Your task to perform on an android device: Set the phone to "Do not disturb". Image 0: 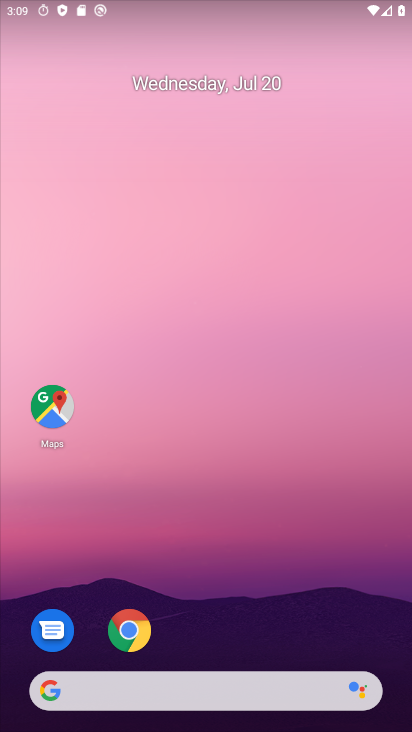
Step 0: drag from (252, 607) to (200, 174)
Your task to perform on an android device: Set the phone to "Do not disturb". Image 1: 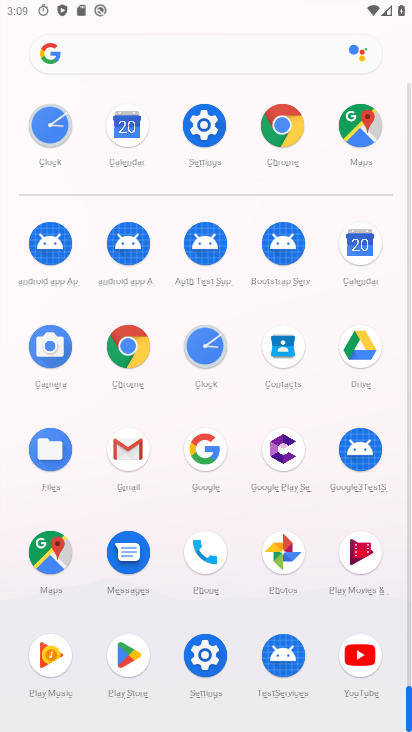
Step 1: click (204, 143)
Your task to perform on an android device: Set the phone to "Do not disturb". Image 2: 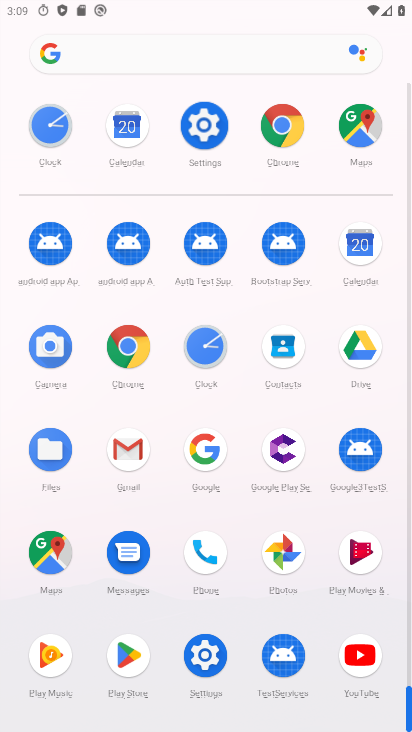
Step 2: click (204, 143)
Your task to perform on an android device: Set the phone to "Do not disturb". Image 3: 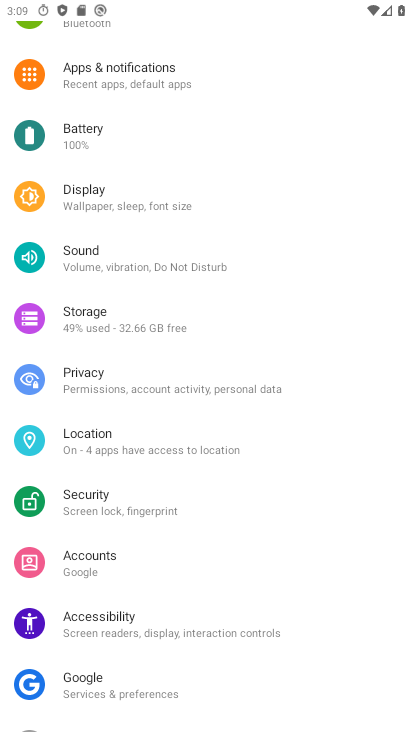
Step 3: drag from (123, 206) to (147, 467)
Your task to perform on an android device: Set the phone to "Do not disturb". Image 4: 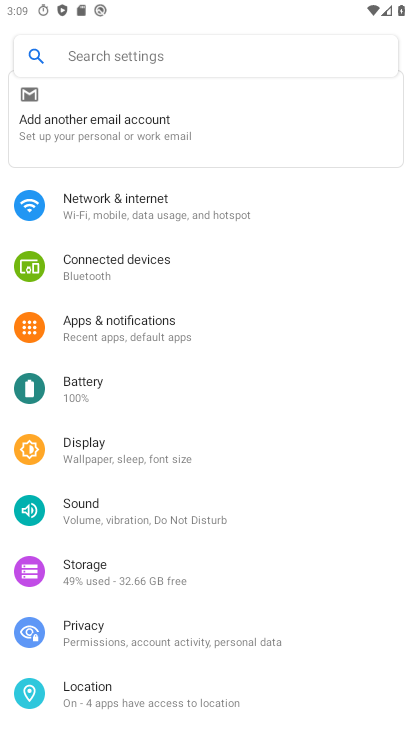
Step 4: drag from (122, 270) to (174, 588)
Your task to perform on an android device: Set the phone to "Do not disturb". Image 5: 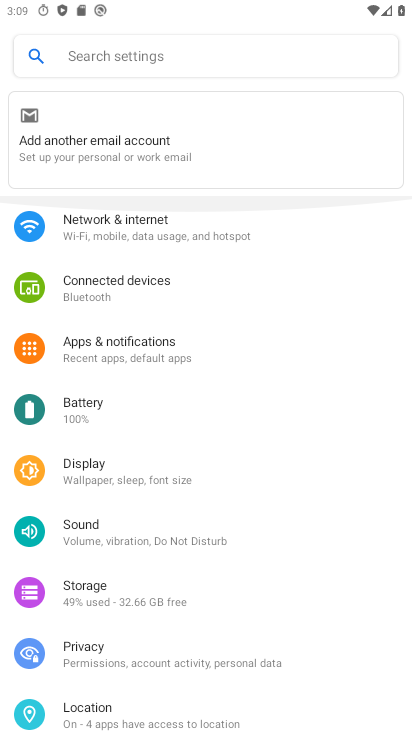
Step 5: drag from (146, 200) to (162, 443)
Your task to perform on an android device: Set the phone to "Do not disturb". Image 6: 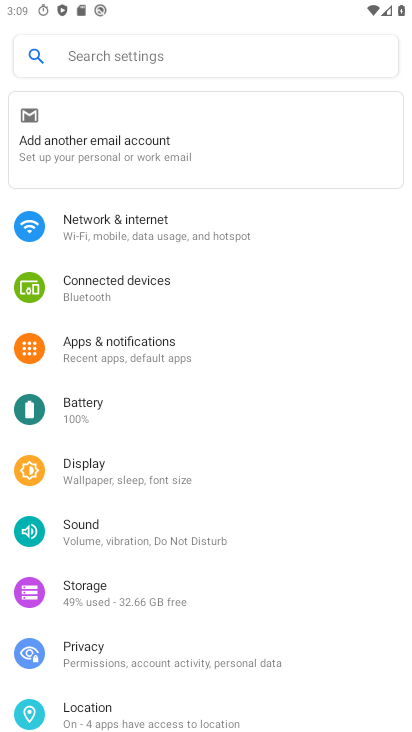
Step 6: drag from (157, 577) to (122, 231)
Your task to perform on an android device: Set the phone to "Do not disturb". Image 7: 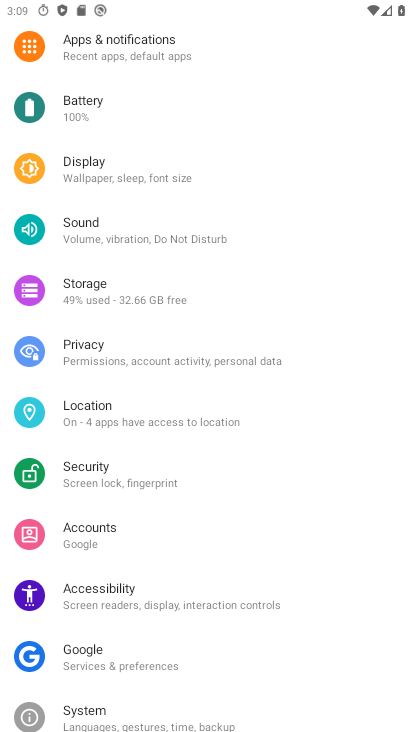
Step 7: click (115, 235)
Your task to perform on an android device: Set the phone to "Do not disturb". Image 8: 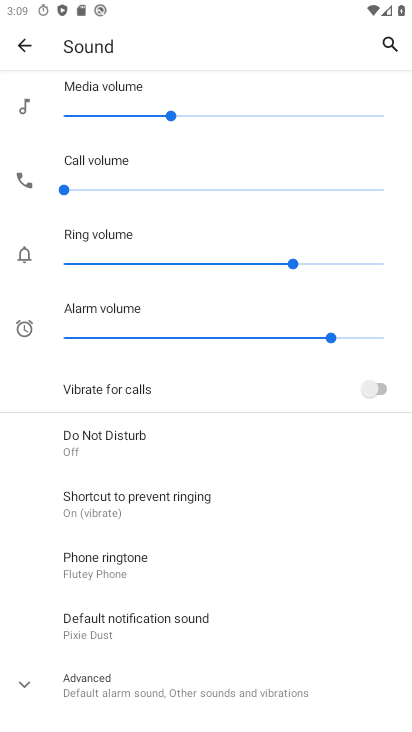
Step 8: drag from (113, 161) to (152, 353)
Your task to perform on an android device: Set the phone to "Do not disturb". Image 9: 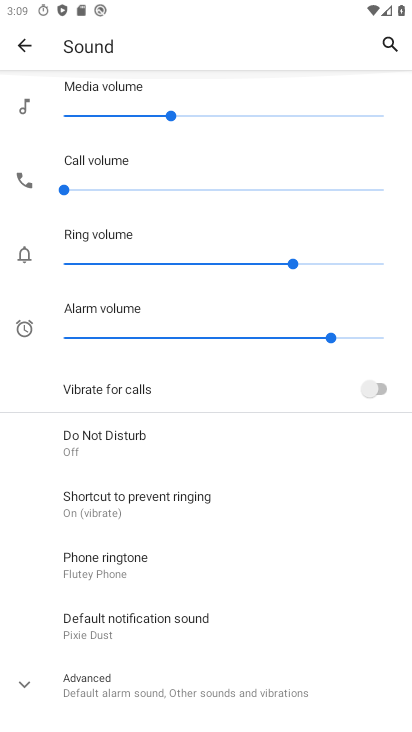
Step 9: drag from (123, 179) to (150, 290)
Your task to perform on an android device: Set the phone to "Do not disturb". Image 10: 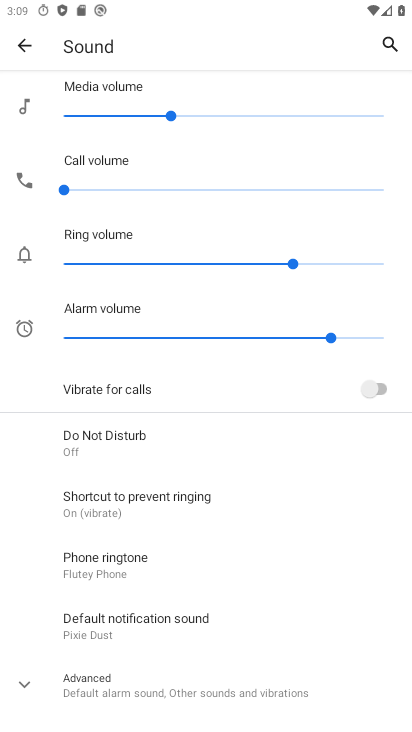
Step 10: click (91, 435)
Your task to perform on an android device: Set the phone to "Do not disturb". Image 11: 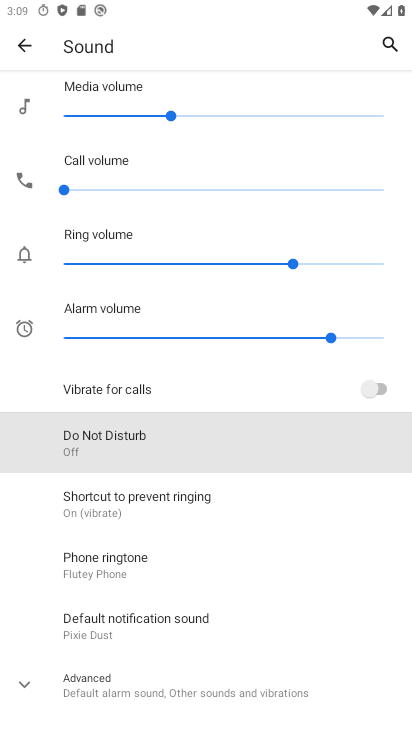
Step 11: click (91, 435)
Your task to perform on an android device: Set the phone to "Do not disturb". Image 12: 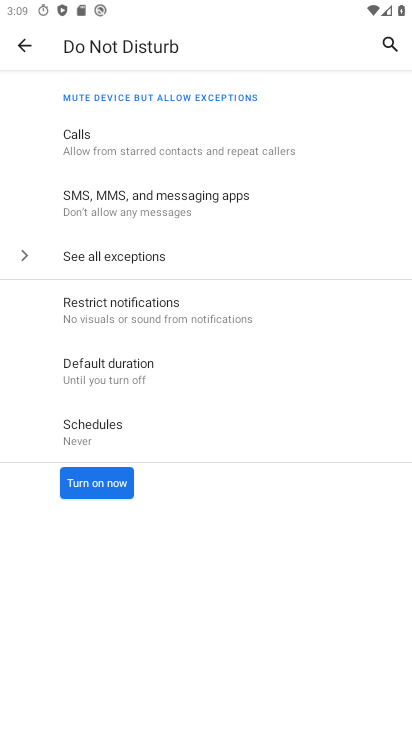
Step 12: click (97, 484)
Your task to perform on an android device: Set the phone to "Do not disturb". Image 13: 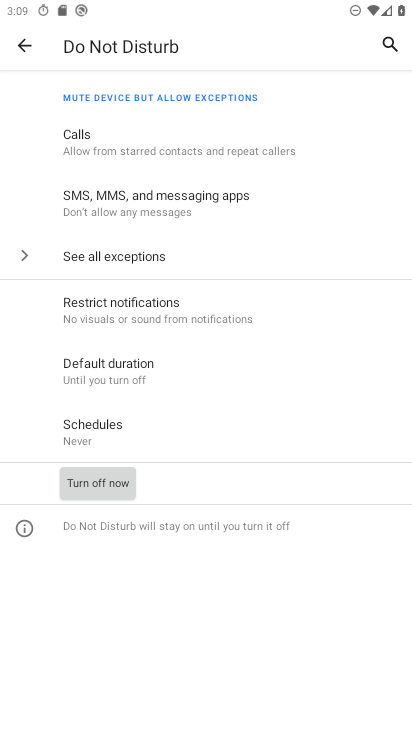
Step 13: task complete